Your task to perform on an android device: turn off sleep mode Image 0: 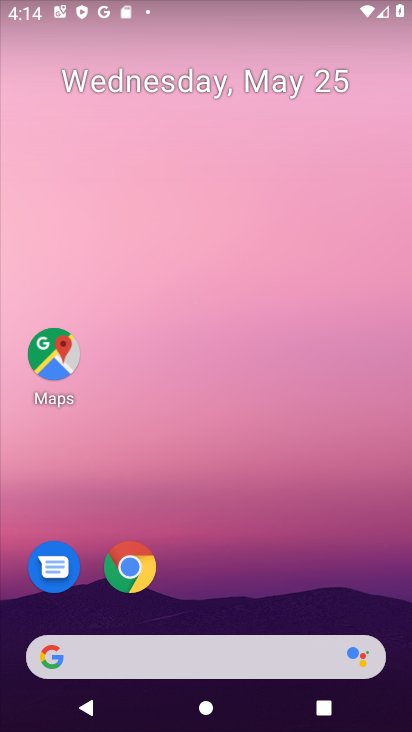
Step 0: drag from (282, 538) to (244, 46)
Your task to perform on an android device: turn off sleep mode Image 1: 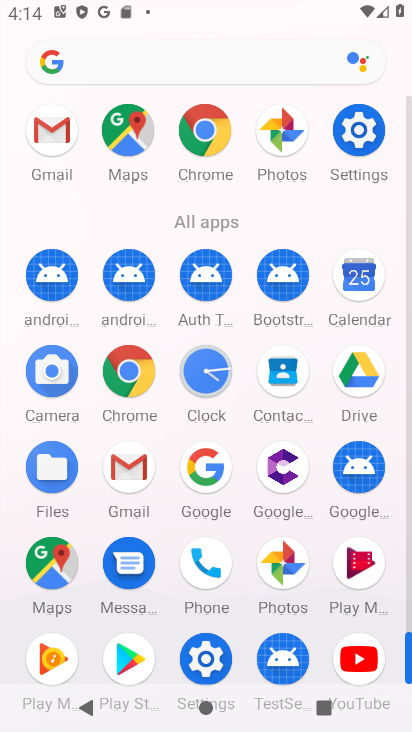
Step 1: drag from (8, 609) to (2, 300)
Your task to perform on an android device: turn off sleep mode Image 2: 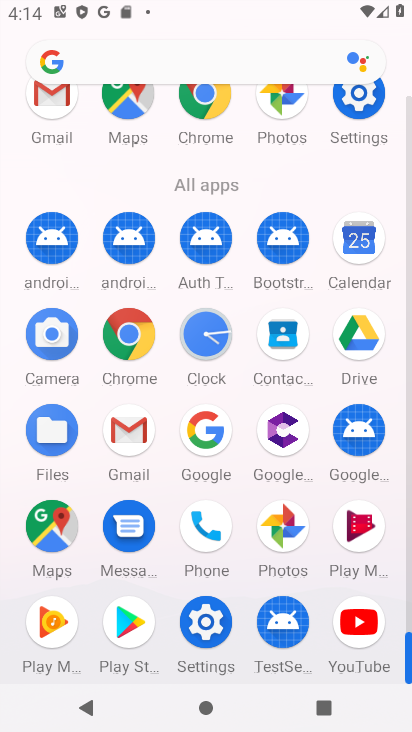
Step 2: click (204, 619)
Your task to perform on an android device: turn off sleep mode Image 3: 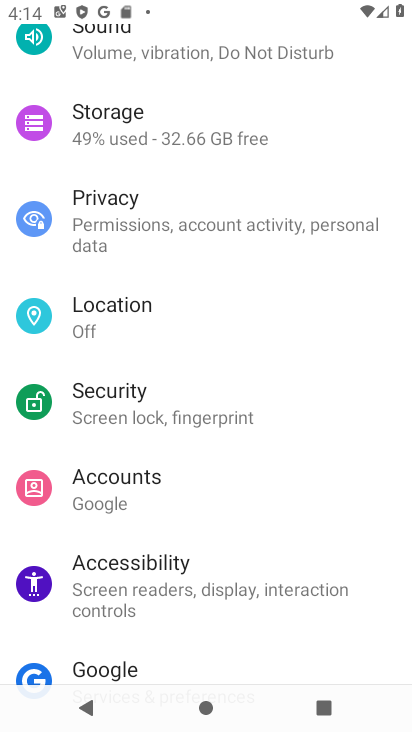
Step 3: drag from (254, 539) to (269, 96)
Your task to perform on an android device: turn off sleep mode Image 4: 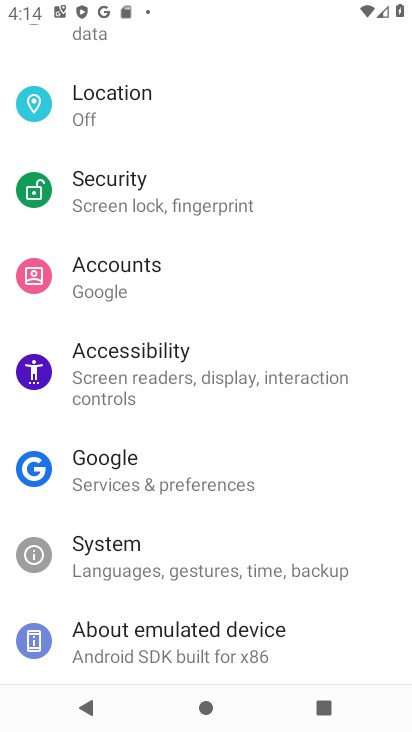
Step 4: drag from (269, 159) to (269, 598)
Your task to perform on an android device: turn off sleep mode Image 5: 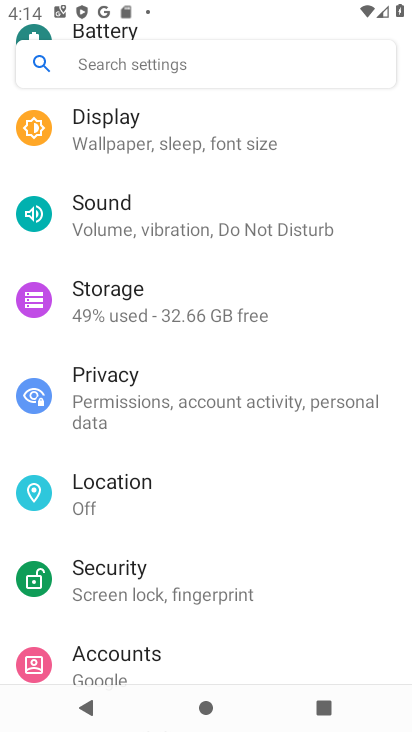
Step 5: drag from (257, 227) to (257, 642)
Your task to perform on an android device: turn off sleep mode Image 6: 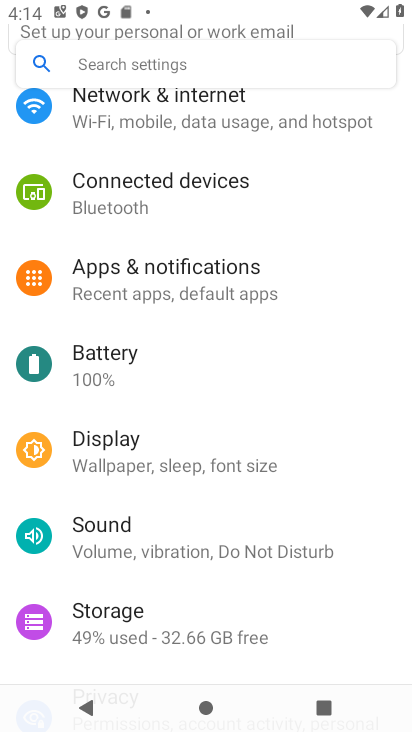
Step 6: drag from (259, 142) to (267, 504)
Your task to perform on an android device: turn off sleep mode Image 7: 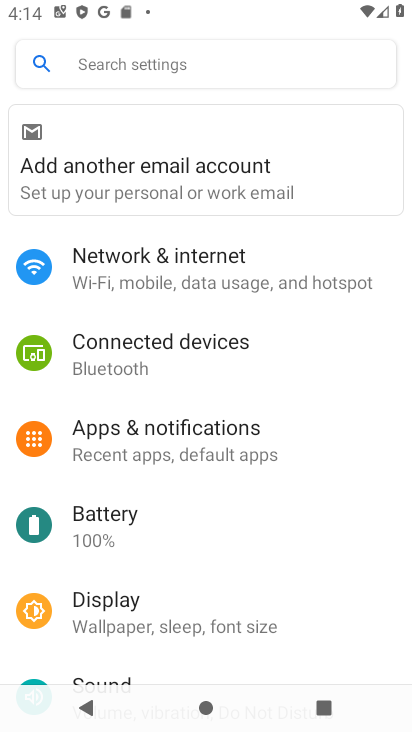
Step 7: click (210, 253)
Your task to perform on an android device: turn off sleep mode Image 8: 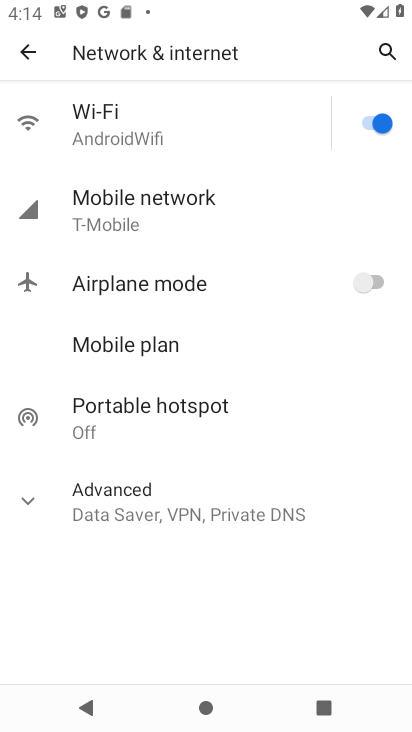
Step 8: click (43, 497)
Your task to perform on an android device: turn off sleep mode Image 9: 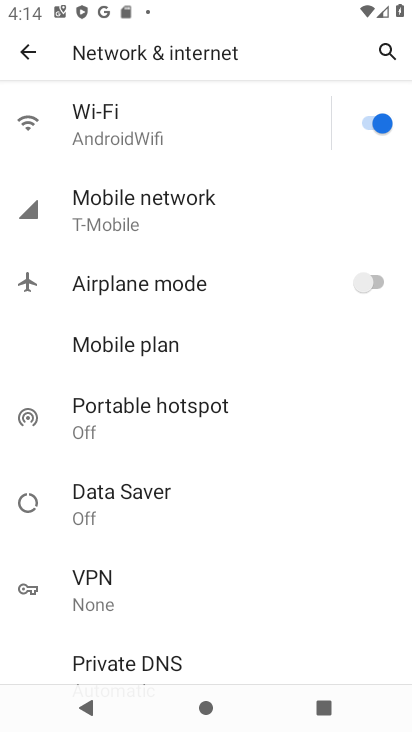
Step 9: task complete